Your task to perform on an android device: Go to privacy settings Image 0: 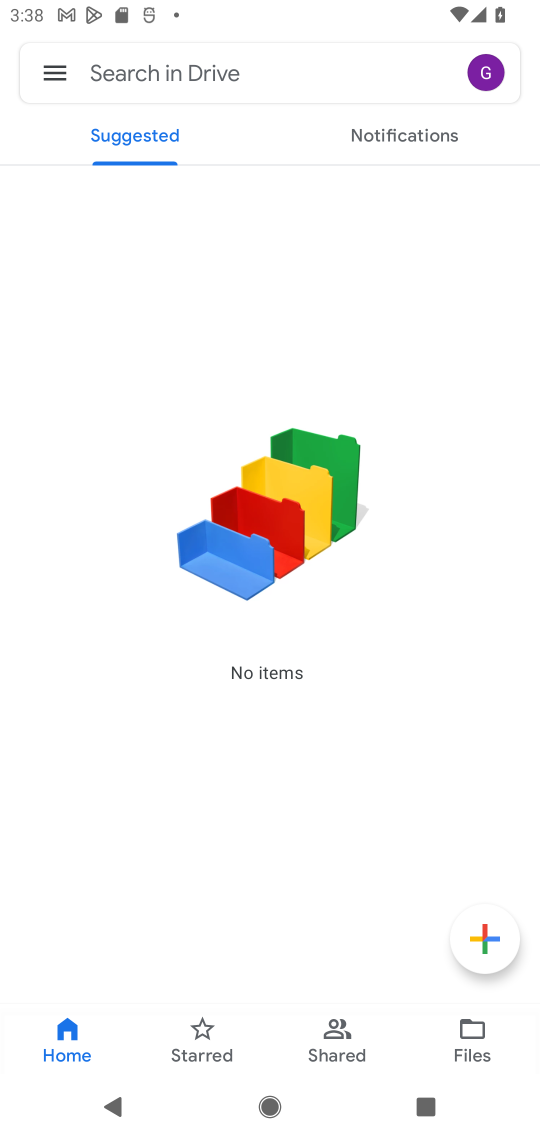
Step 0: press home button
Your task to perform on an android device: Go to privacy settings Image 1: 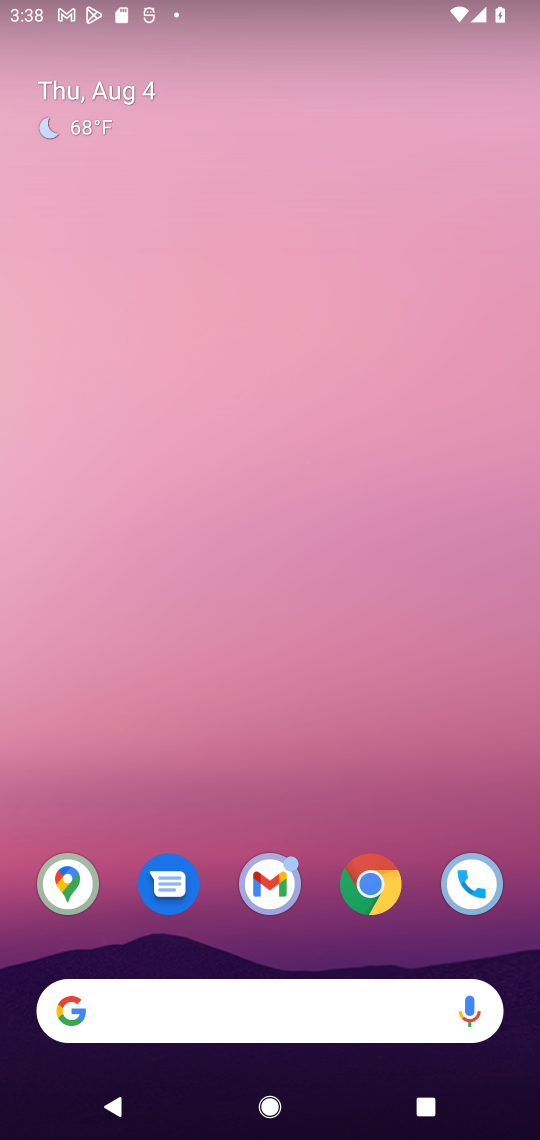
Step 1: drag from (316, 940) to (405, 124)
Your task to perform on an android device: Go to privacy settings Image 2: 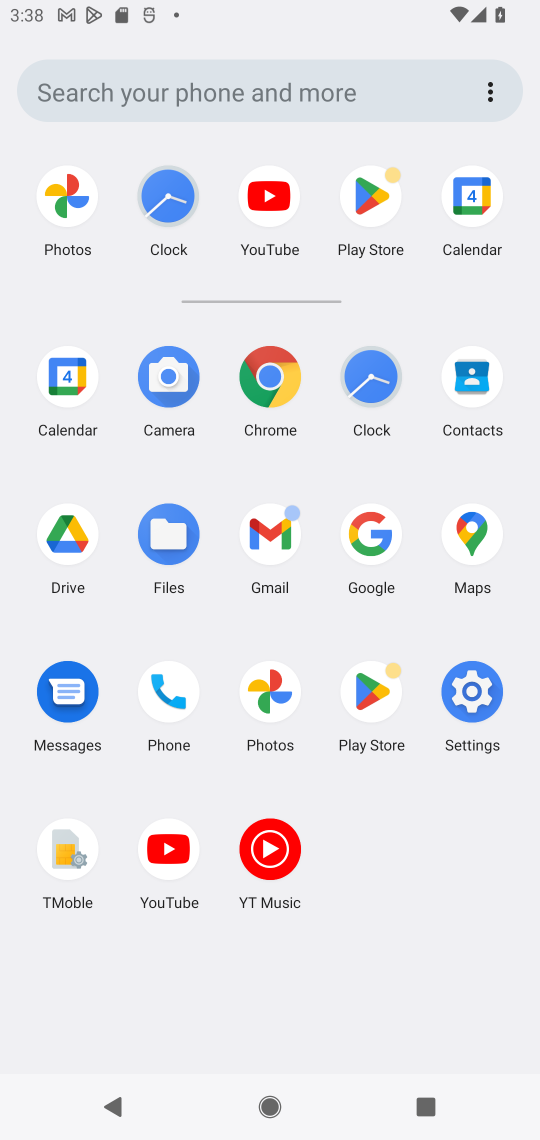
Step 2: click (458, 711)
Your task to perform on an android device: Go to privacy settings Image 3: 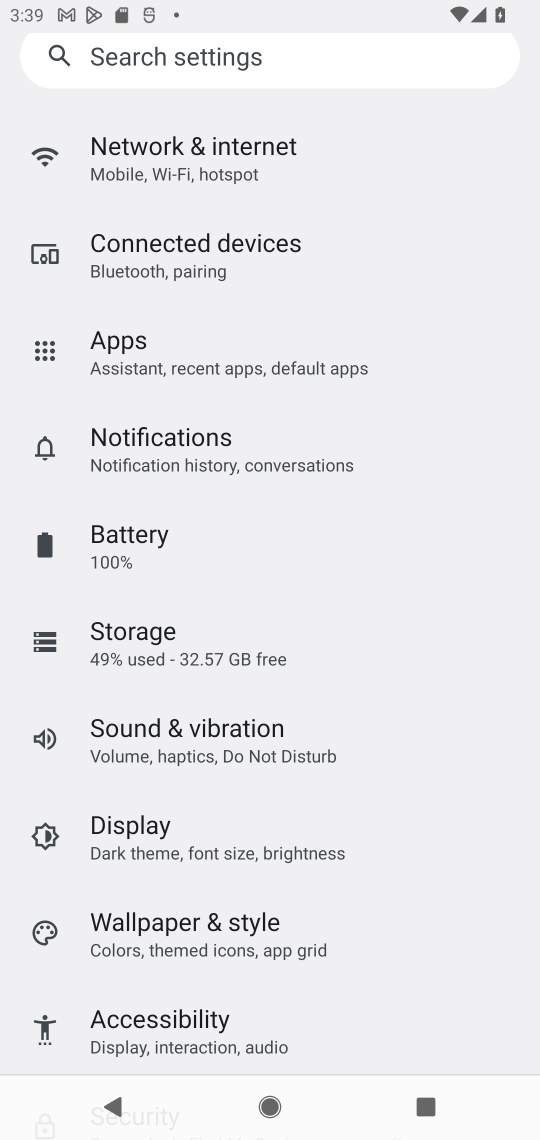
Step 3: drag from (209, 916) to (259, 421)
Your task to perform on an android device: Go to privacy settings Image 4: 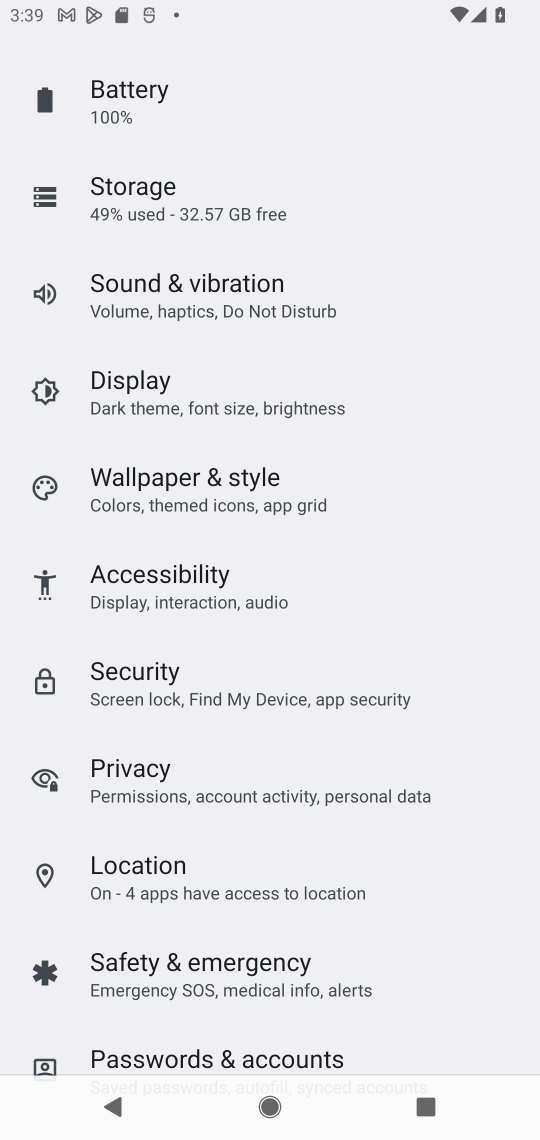
Step 4: click (221, 784)
Your task to perform on an android device: Go to privacy settings Image 5: 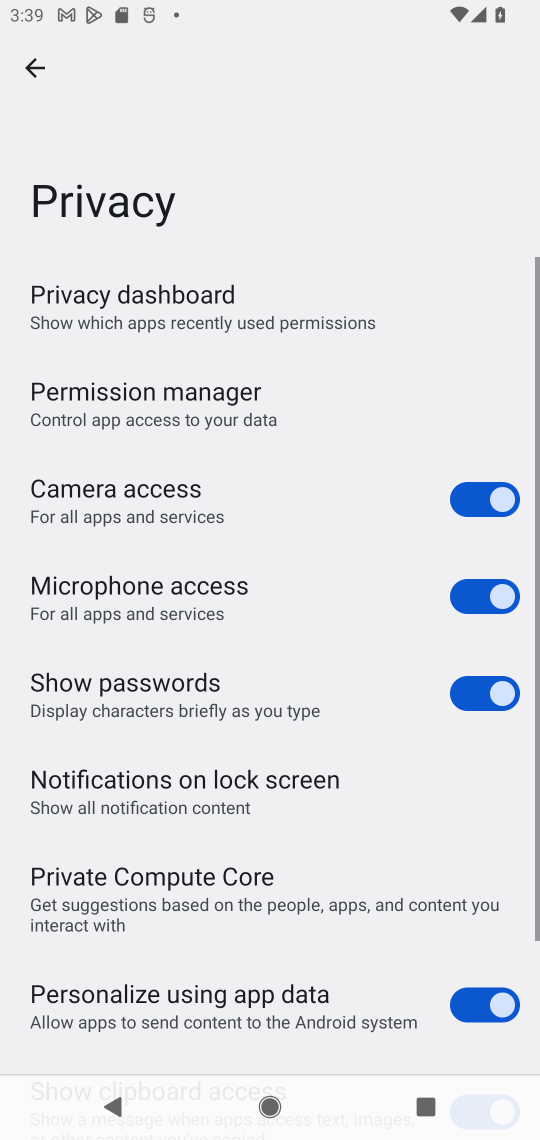
Step 5: task complete